Your task to perform on an android device: turn on data saver in the chrome app Image 0: 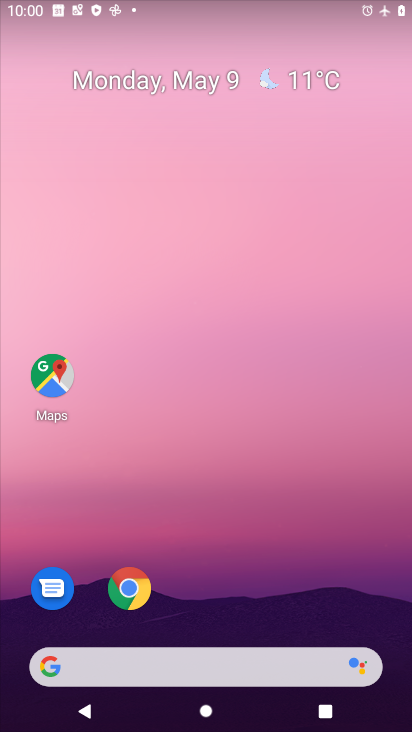
Step 0: drag from (361, 605) to (282, 95)
Your task to perform on an android device: turn on data saver in the chrome app Image 1: 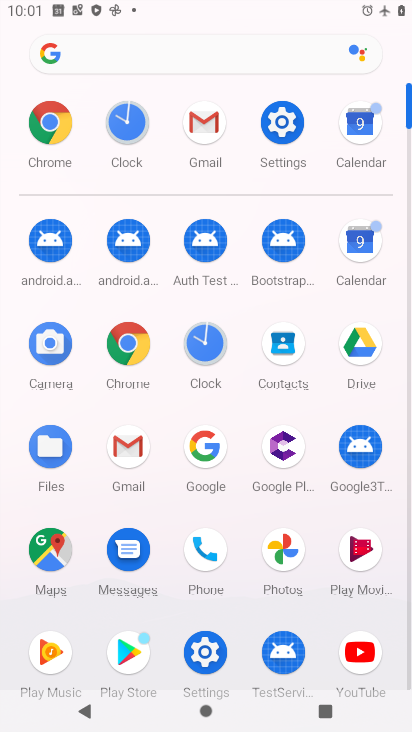
Step 1: click (134, 361)
Your task to perform on an android device: turn on data saver in the chrome app Image 2: 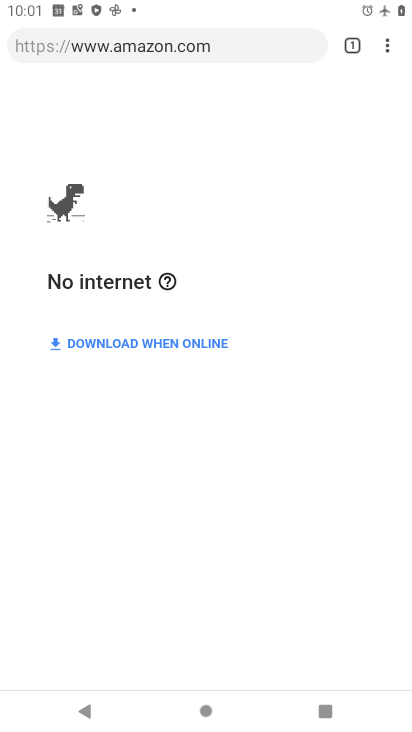
Step 2: click (385, 42)
Your task to perform on an android device: turn on data saver in the chrome app Image 3: 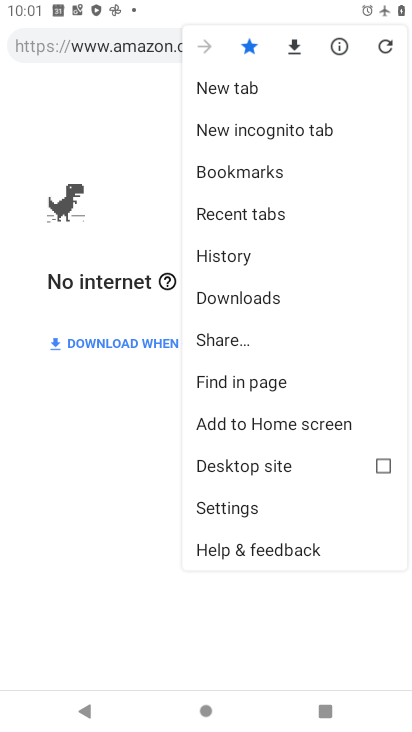
Step 3: click (264, 508)
Your task to perform on an android device: turn on data saver in the chrome app Image 4: 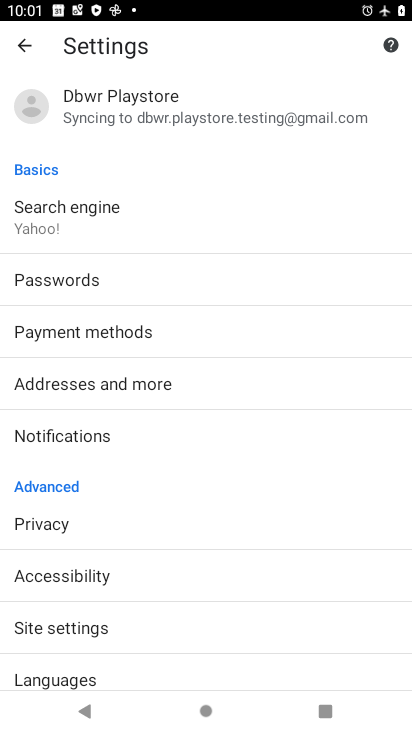
Step 4: drag from (138, 639) to (150, 348)
Your task to perform on an android device: turn on data saver in the chrome app Image 5: 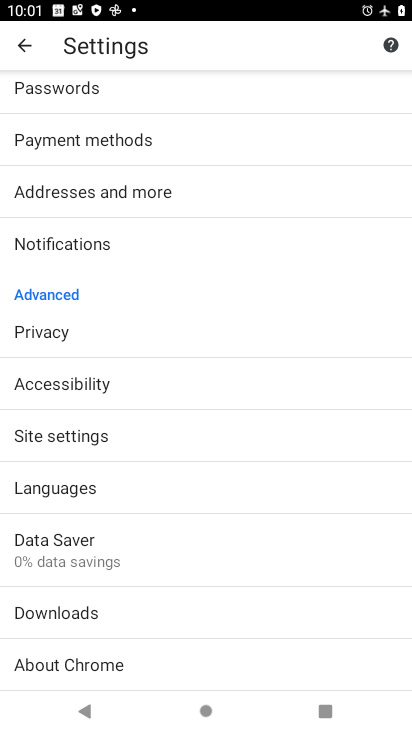
Step 5: click (121, 557)
Your task to perform on an android device: turn on data saver in the chrome app Image 6: 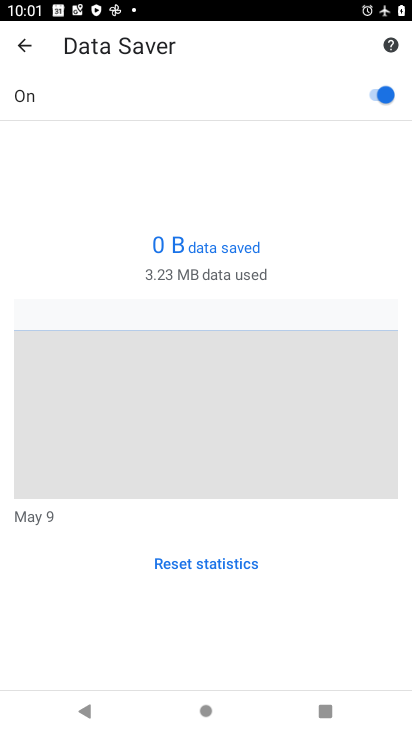
Step 6: task complete